Your task to perform on an android device: Open Chrome and go to the settings page Image 0: 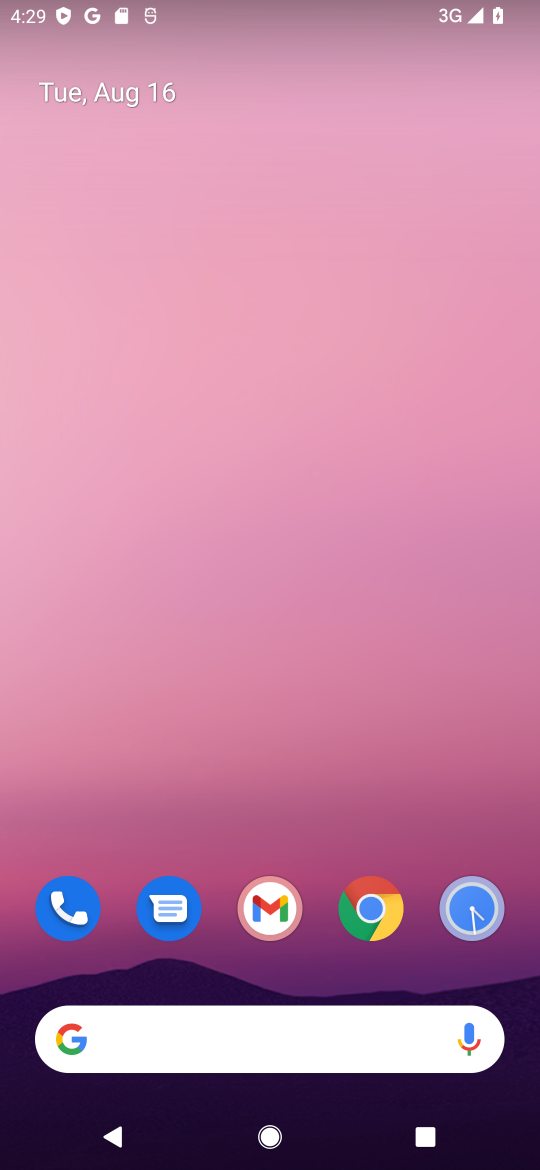
Step 0: click (361, 897)
Your task to perform on an android device: Open Chrome and go to the settings page Image 1: 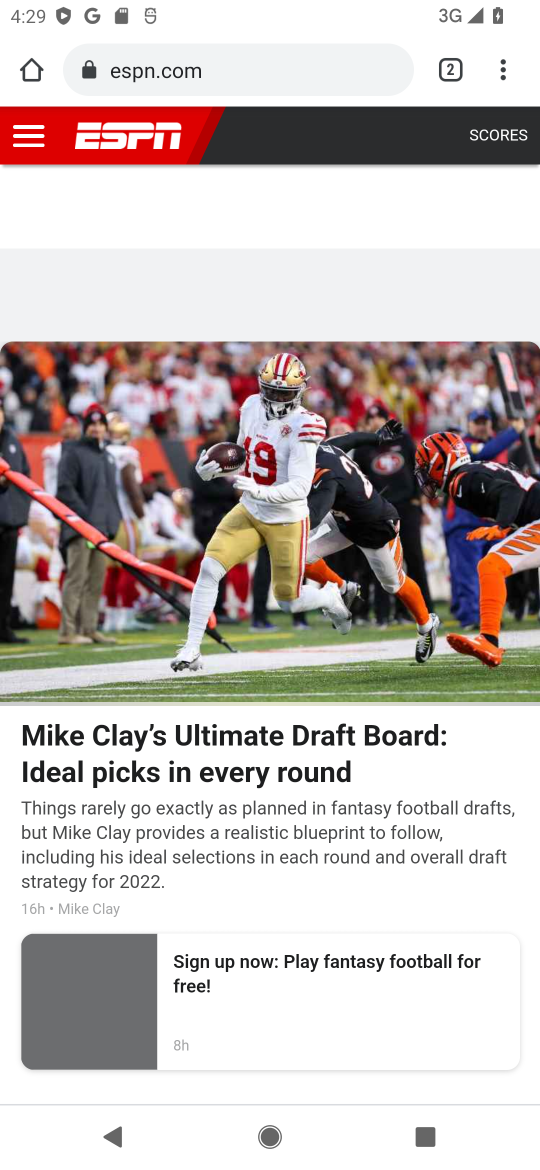
Step 1: task complete